Your task to perform on an android device: Open the phone app and click the voicemail tab. Image 0: 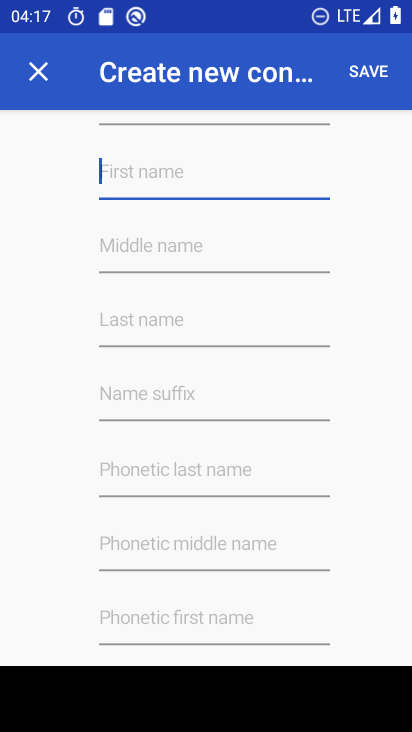
Step 0: press home button
Your task to perform on an android device: Open the phone app and click the voicemail tab. Image 1: 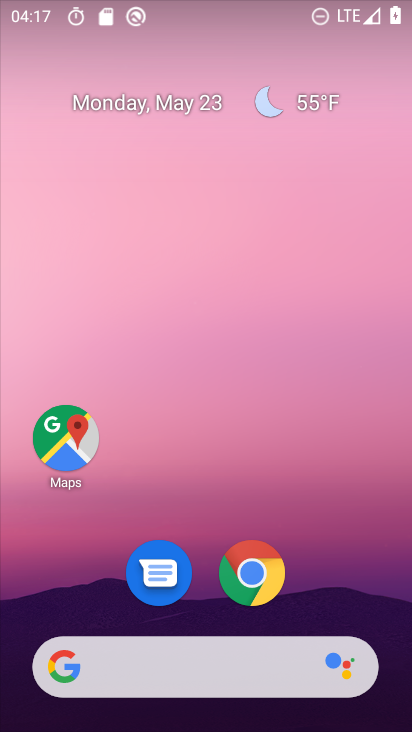
Step 1: drag from (320, 587) to (278, 84)
Your task to perform on an android device: Open the phone app and click the voicemail tab. Image 2: 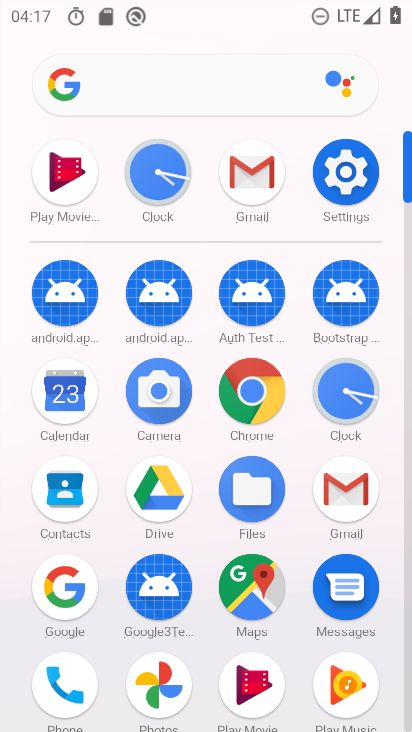
Step 2: click (51, 692)
Your task to perform on an android device: Open the phone app and click the voicemail tab. Image 3: 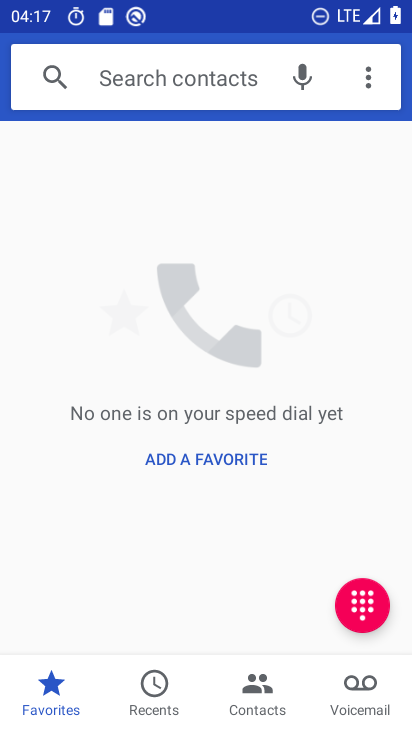
Step 3: click (370, 695)
Your task to perform on an android device: Open the phone app and click the voicemail tab. Image 4: 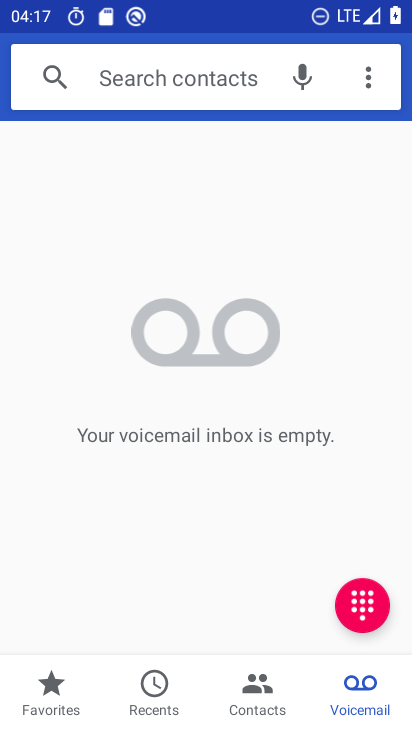
Step 4: task complete